Your task to perform on an android device: add a contact in the contacts app Image 0: 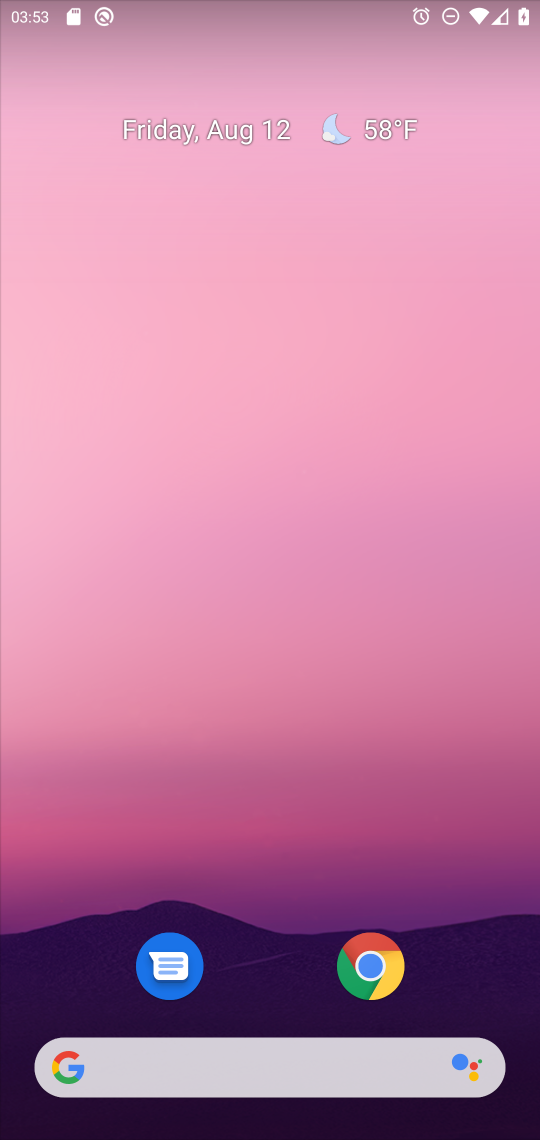
Step 0: drag from (277, 938) to (278, 30)
Your task to perform on an android device: add a contact in the contacts app Image 1: 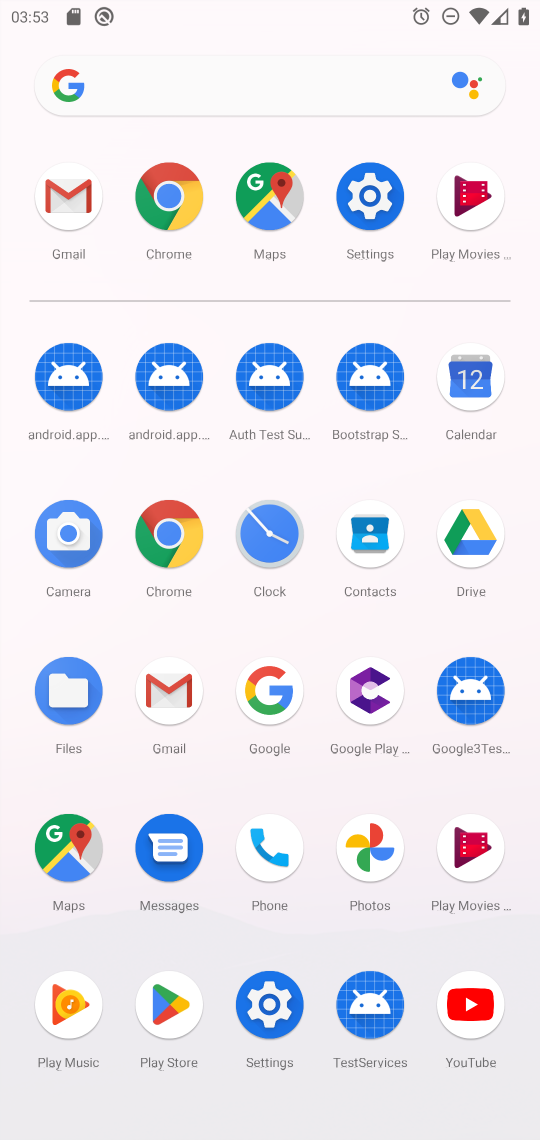
Step 1: click (385, 540)
Your task to perform on an android device: add a contact in the contacts app Image 2: 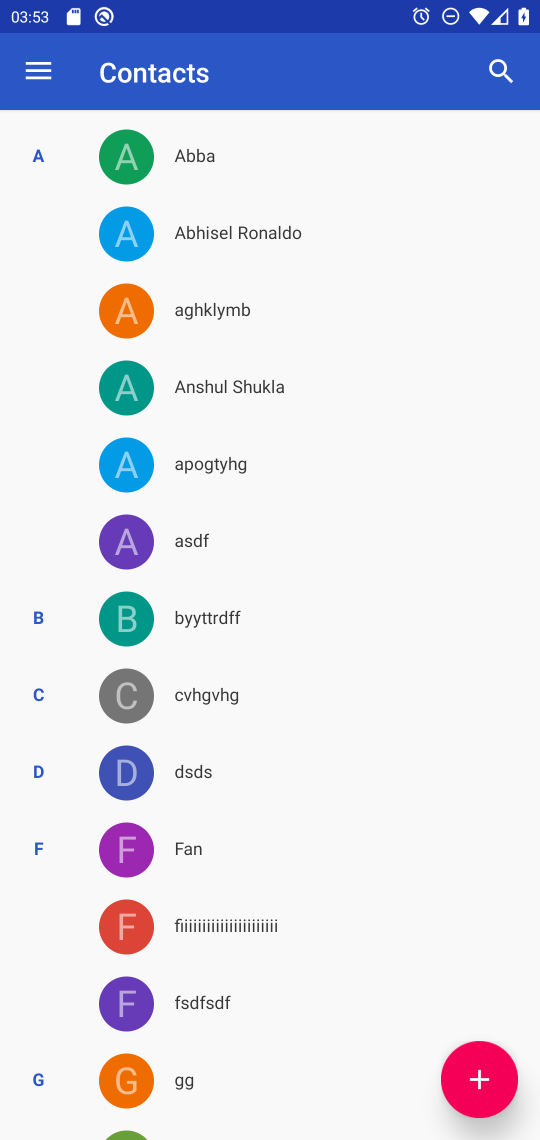
Step 2: click (474, 1073)
Your task to perform on an android device: add a contact in the contacts app Image 3: 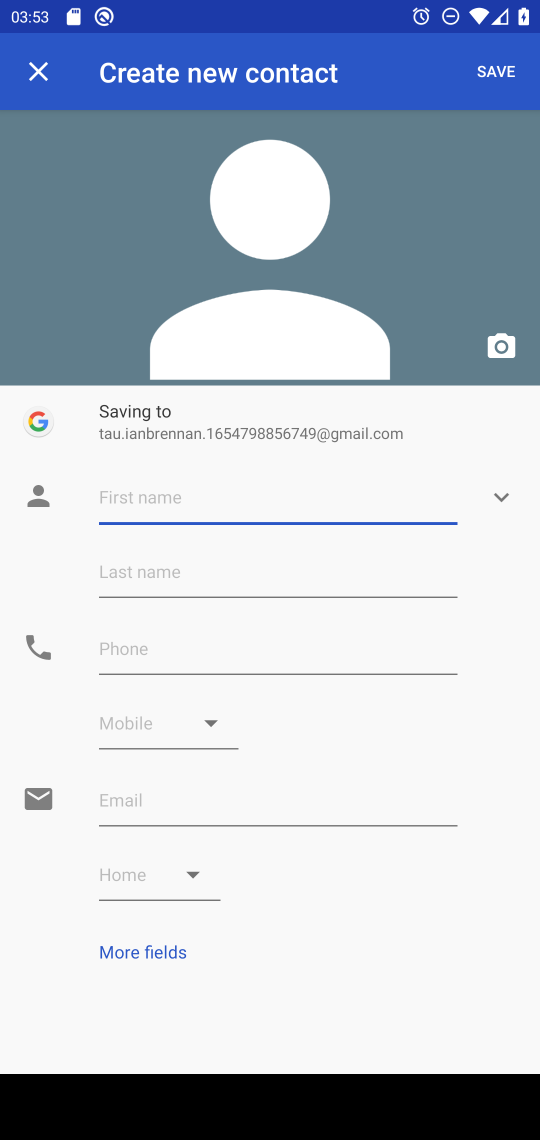
Step 3: type "ujukk"
Your task to perform on an android device: add a contact in the contacts app Image 4: 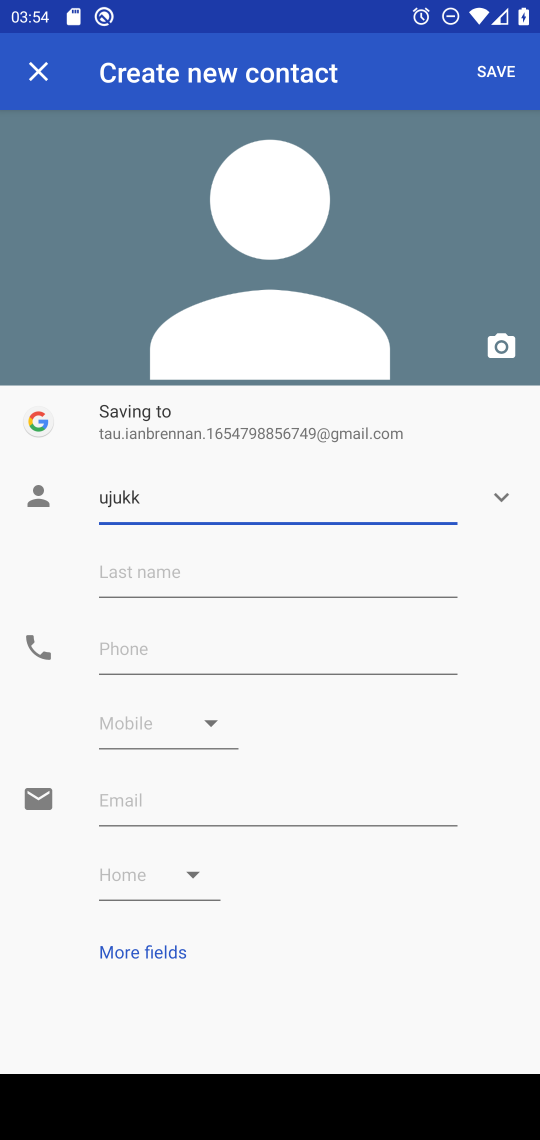
Step 4: click (490, 58)
Your task to perform on an android device: add a contact in the contacts app Image 5: 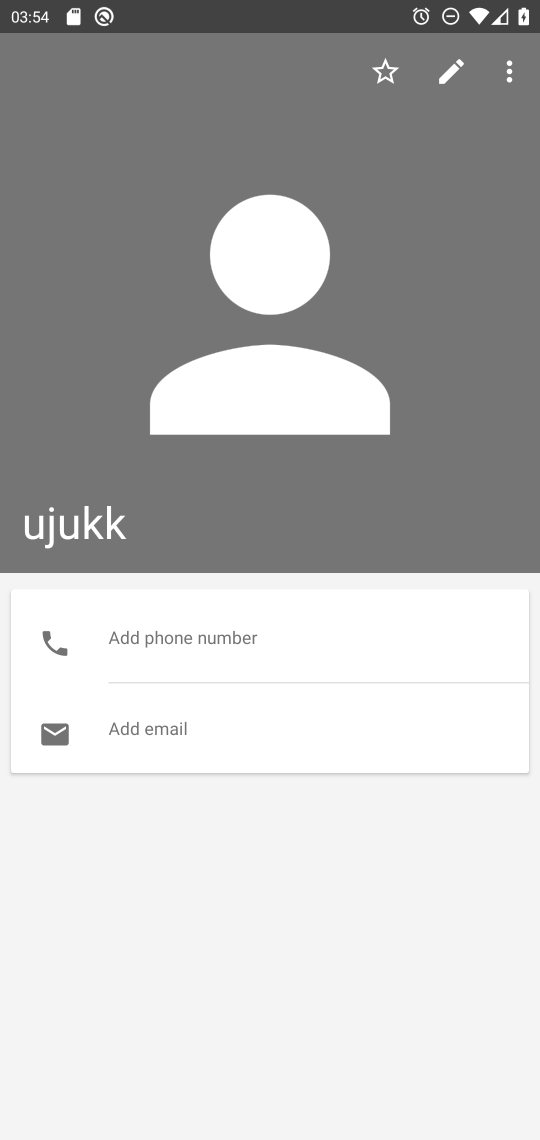
Step 5: task complete